Your task to perform on an android device: Go to calendar. Show me events next week Image 0: 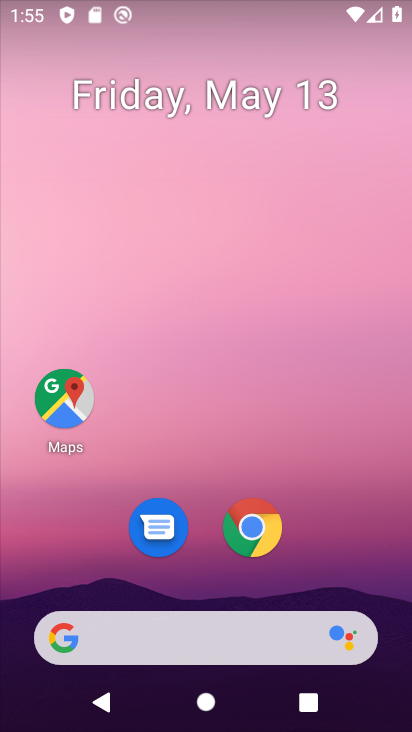
Step 0: drag from (302, 546) to (329, 83)
Your task to perform on an android device: Go to calendar. Show me events next week Image 1: 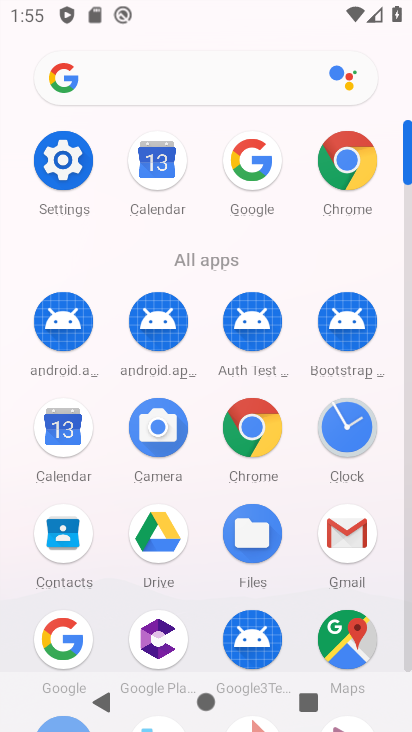
Step 1: click (68, 426)
Your task to perform on an android device: Go to calendar. Show me events next week Image 2: 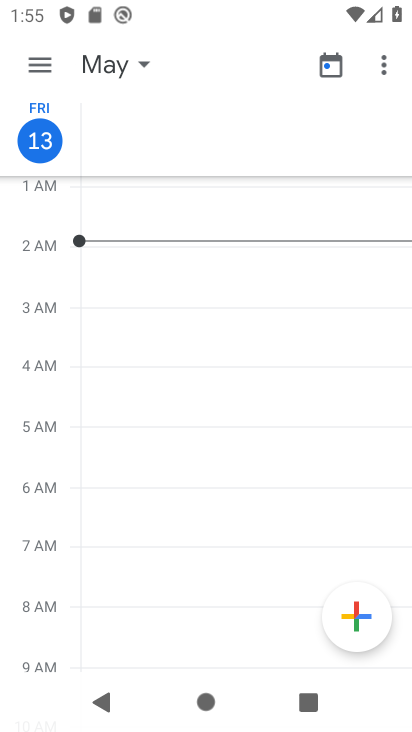
Step 2: click (45, 71)
Your task to perform on an android device: Go to calendar. Show me events next week Image 3: 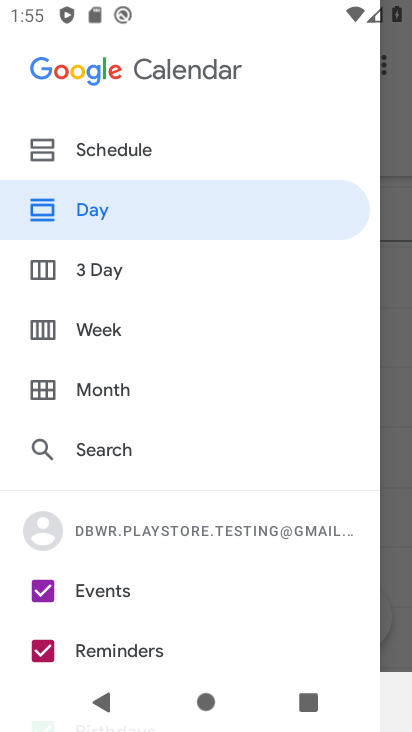
Step 3: click (99, 145)
Your task to perform on an android device: Go to calendar. Show me events next week Image 4: 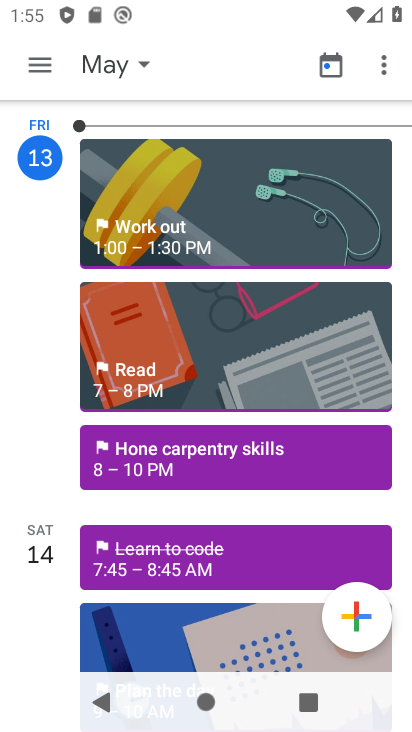
Step 4: click (95, 81)
Your task to perform on an android device: Go to calendar. Show me events next week Image 5: 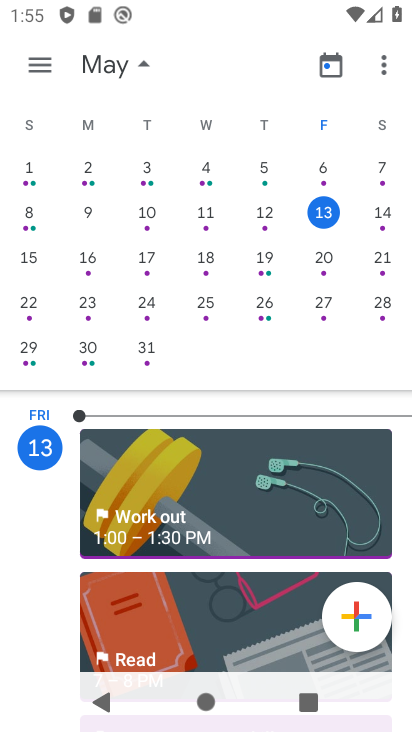
Step 5: click (36, 261)
Your task to perform on an android device: Go to calendar. Show me events next week Image 6: 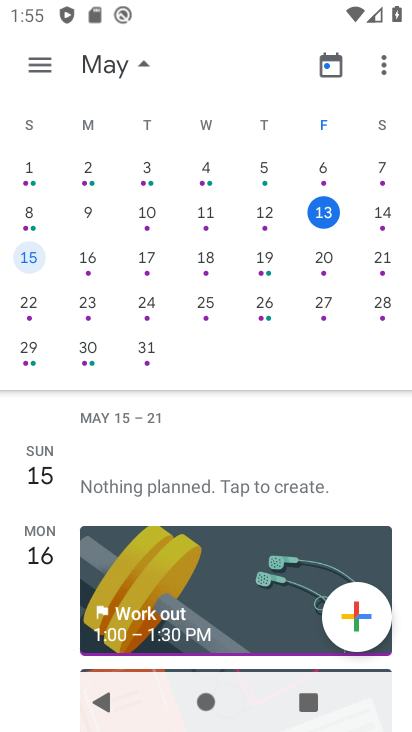
Step 6: task complete